Your task to perform on an android device: Set an alarm for 7am Image 0: 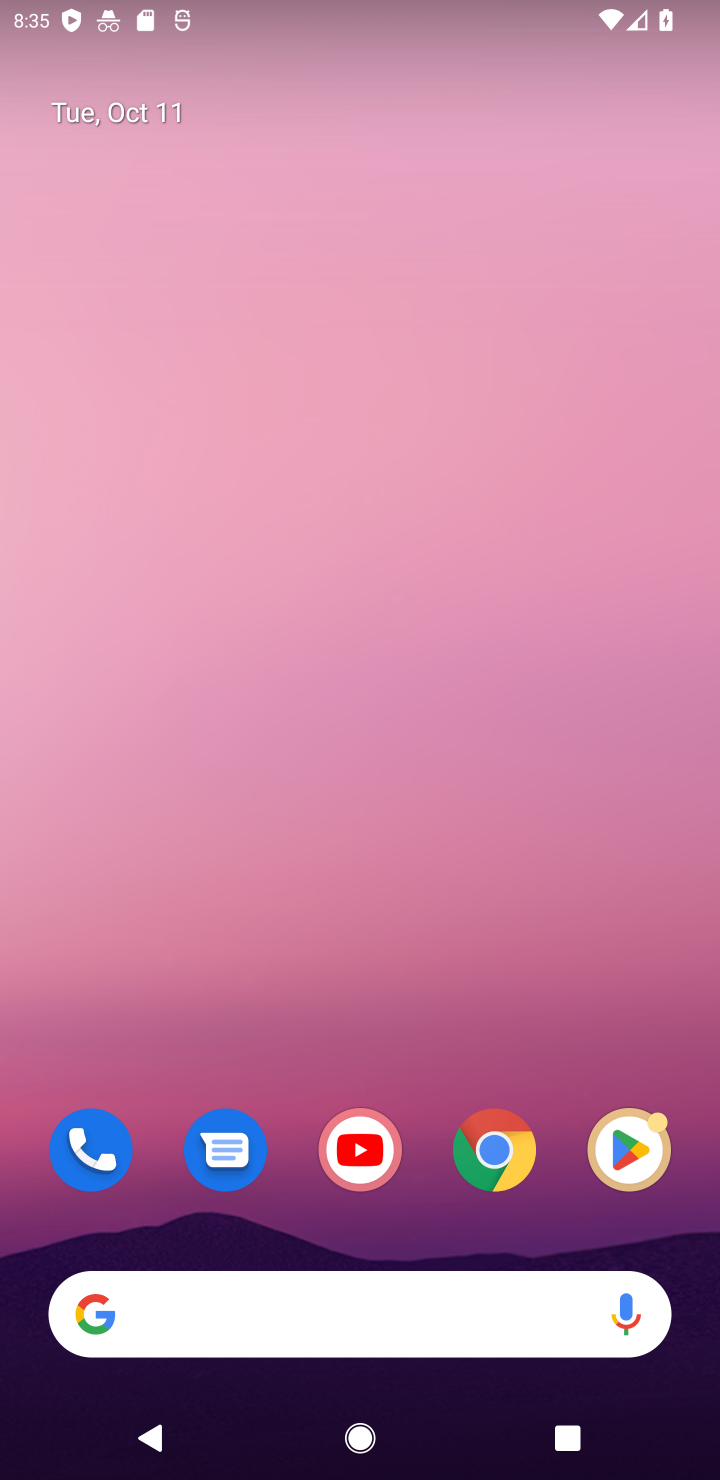
Step 0: drag from (404, 923) to (486, 23)
Your task to perform on an android device: Set an alarm for 7am Image 1: 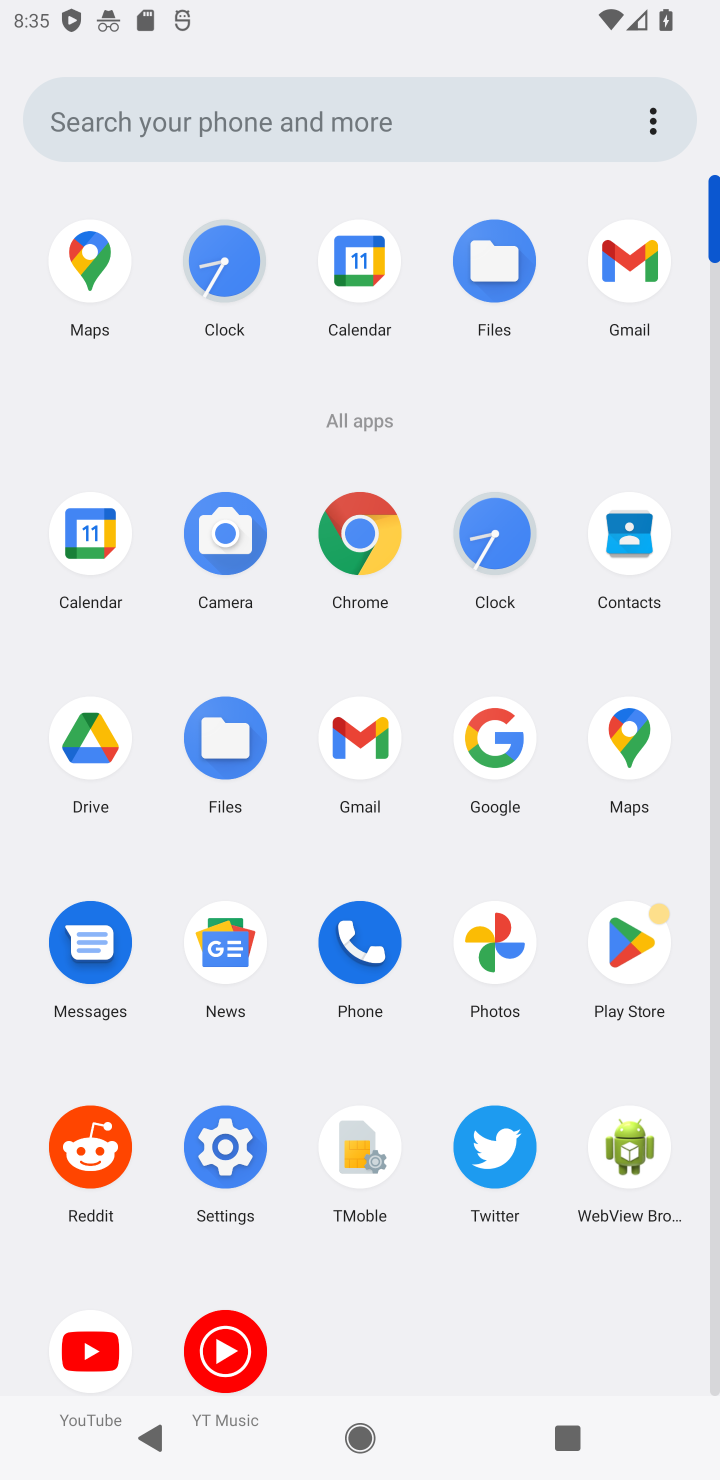
Step 1: click (226, 274)
Your task to perform on an android device: Set an alarm for 7am Image 2: 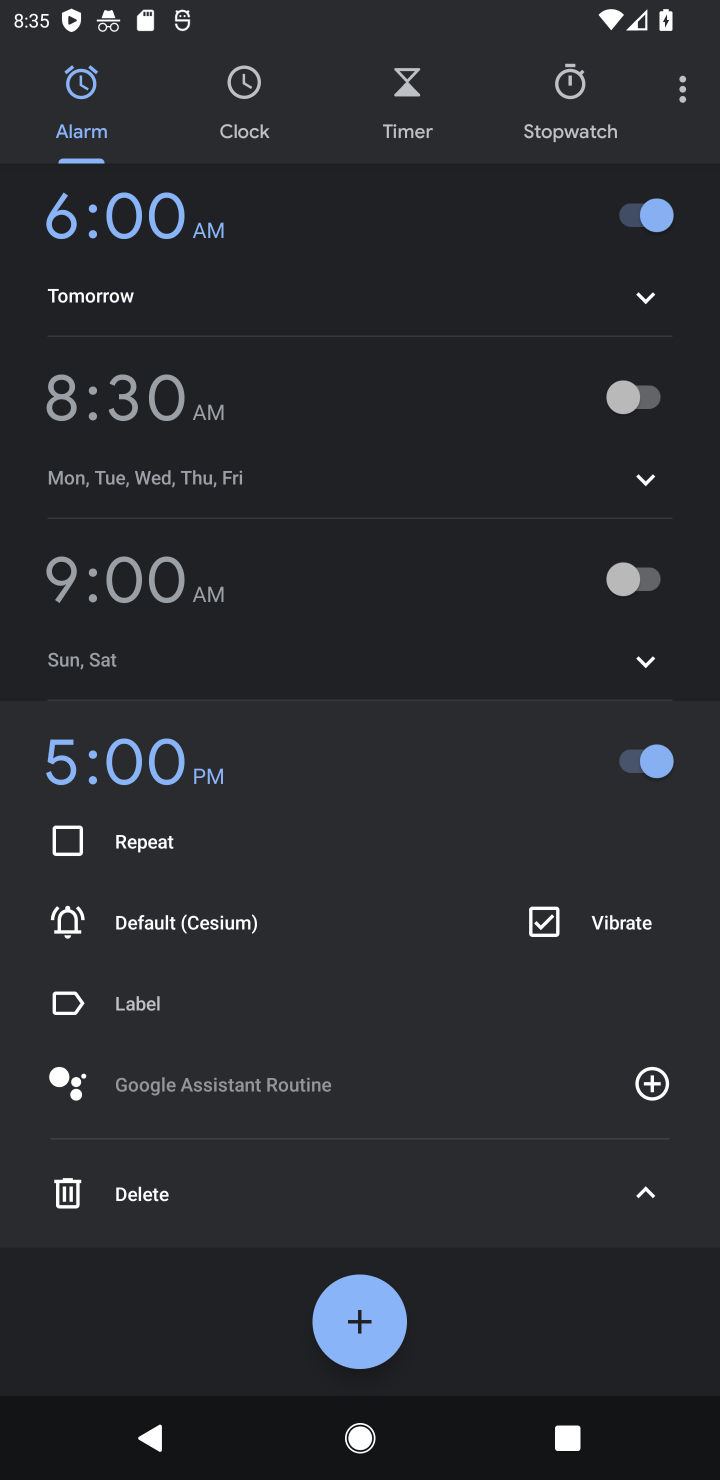
Step 2: click (356, 1335)
Your task to perform on an android device: Set an alarm for 7am Image 3: 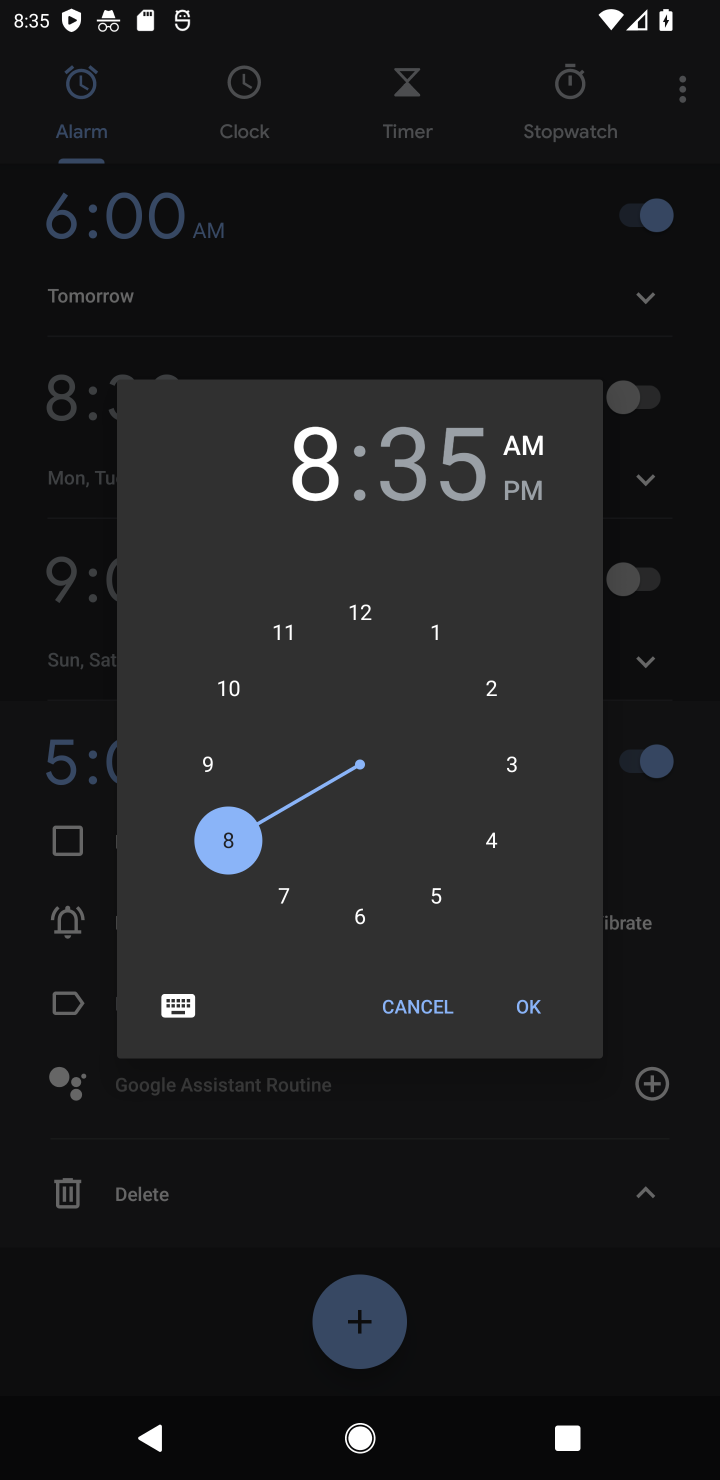
Step 3: click (287, 907)
Your task to perform on an android device: Set an alarm for 7am Image 4: 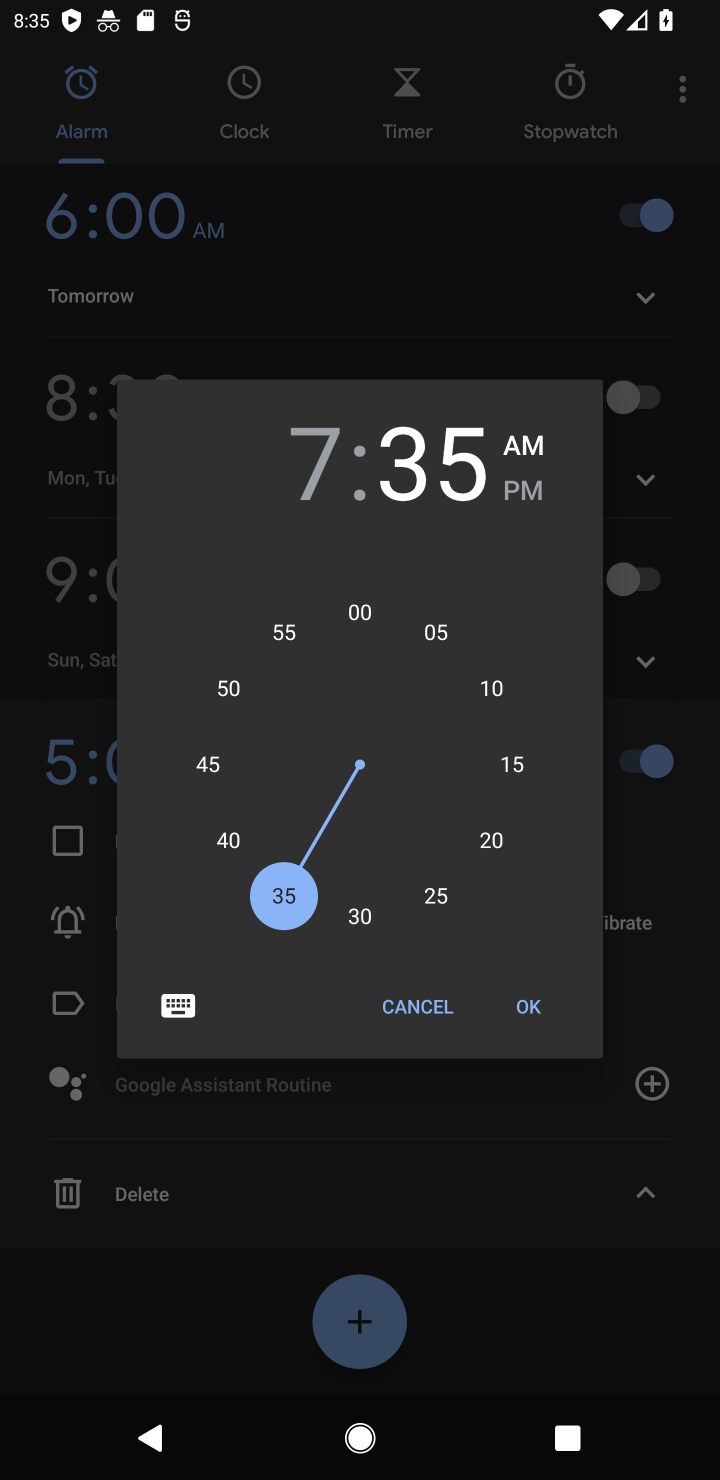
Step 4: click (364, 611)
Your task to perform on an android device: Set an alarm for 7am Image 5: 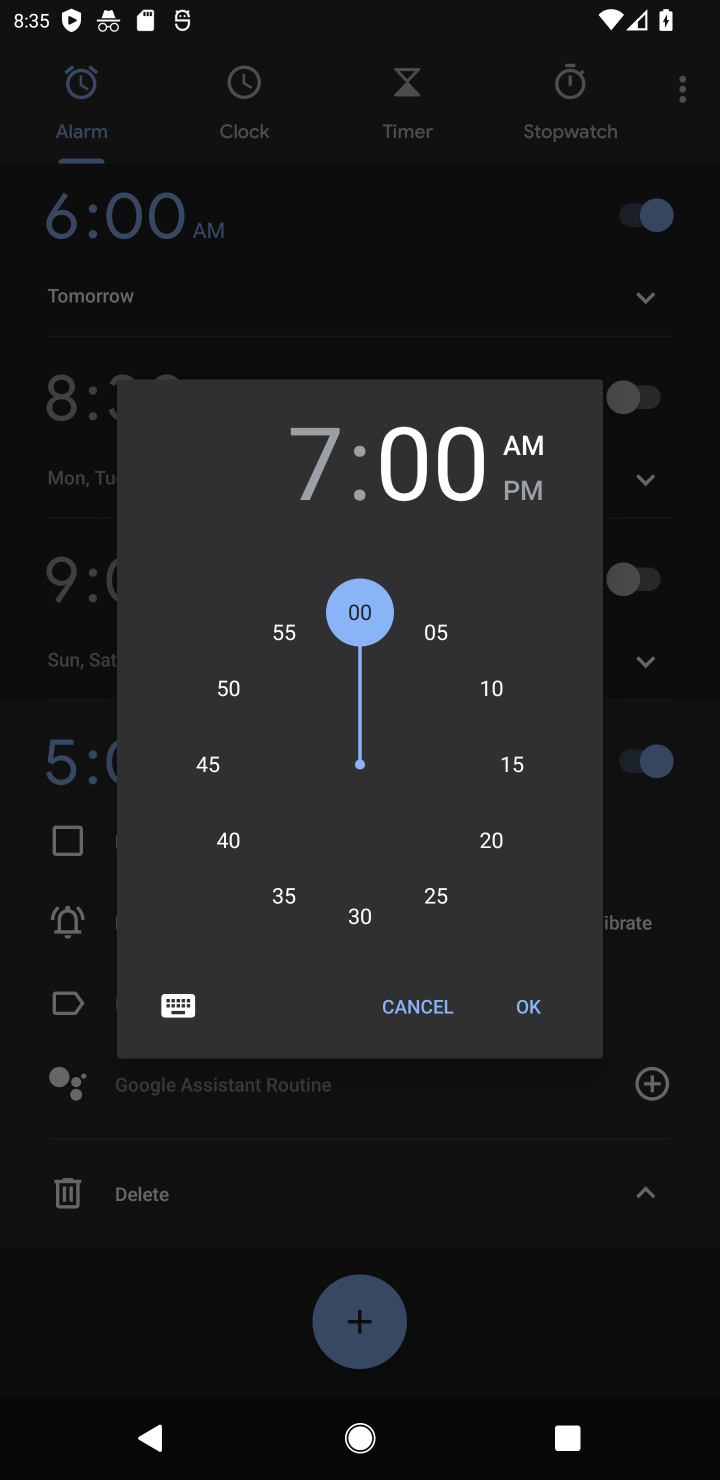
Step 5: click (535, 1018)
Your task to perform on an android device: Set an alarm for 7am Image 6: 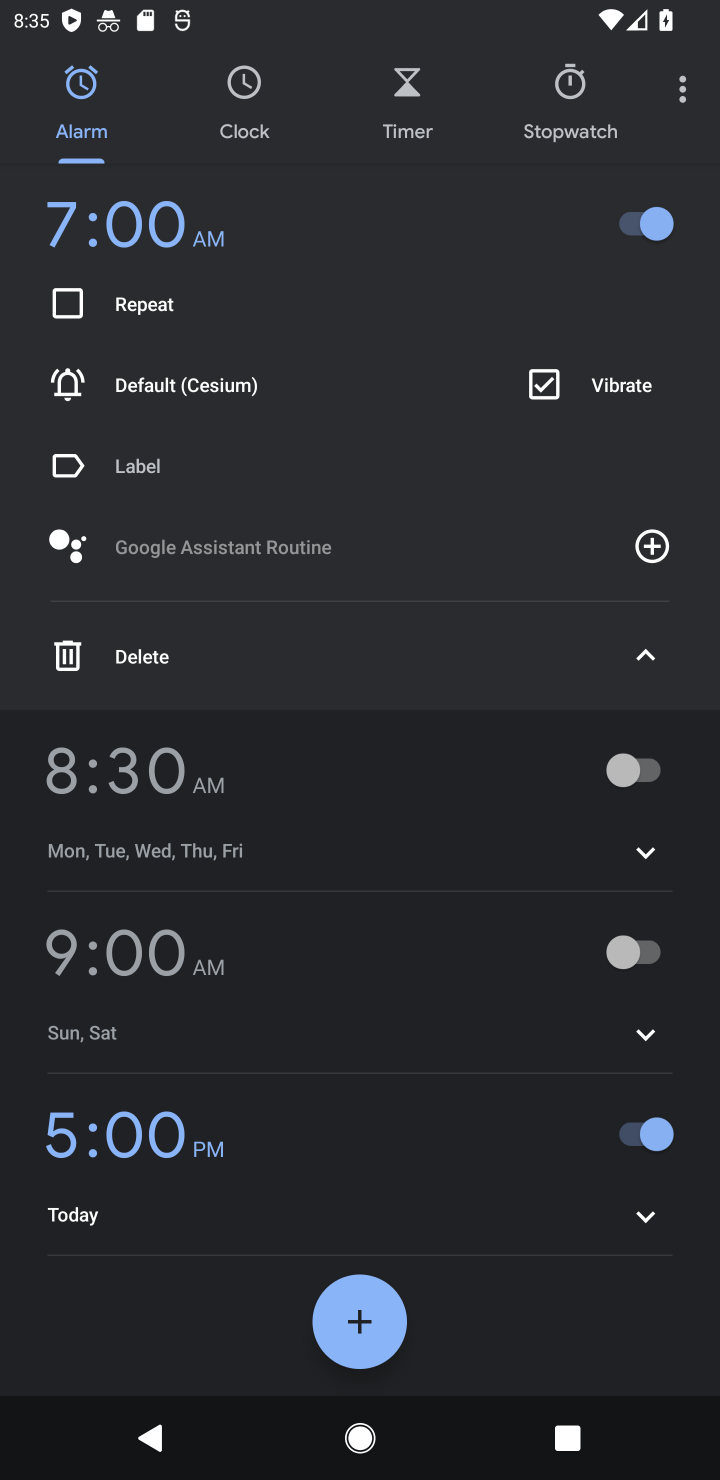
Step 6: task complete